Your task to perform on an android device: Turn on the flashlight Image 0: 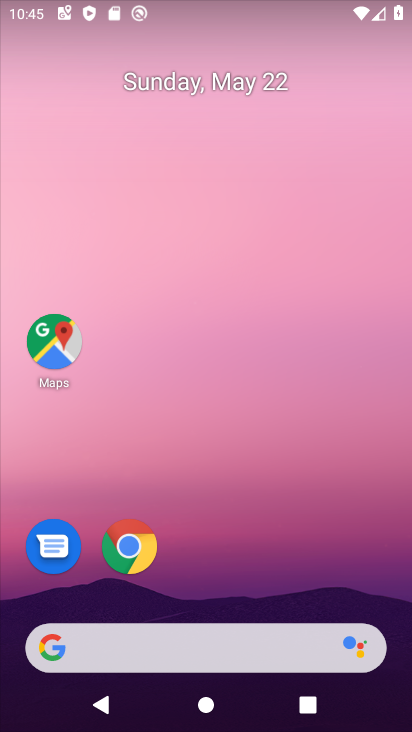
Step 0: drag from (256, 586) to (282, 0)
Your task to perform on an android device: Turn on the flashlight Image 1: 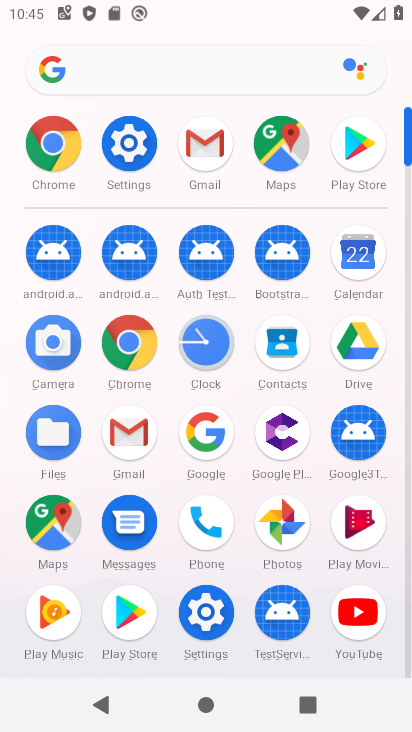
Step 1: click (200, 613)
Your task to perform on an android device: Turn on the flashlight Image 2: 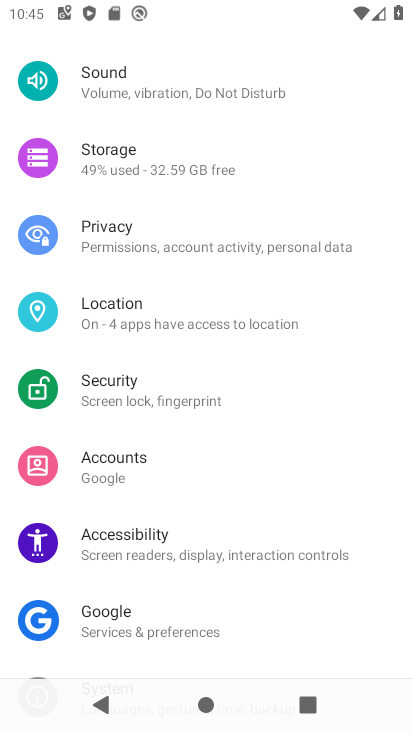
Step 2: drag from (241, 158) to (236, 643)
Your task to perform on an android device: Turn on the flashlight Image 3: 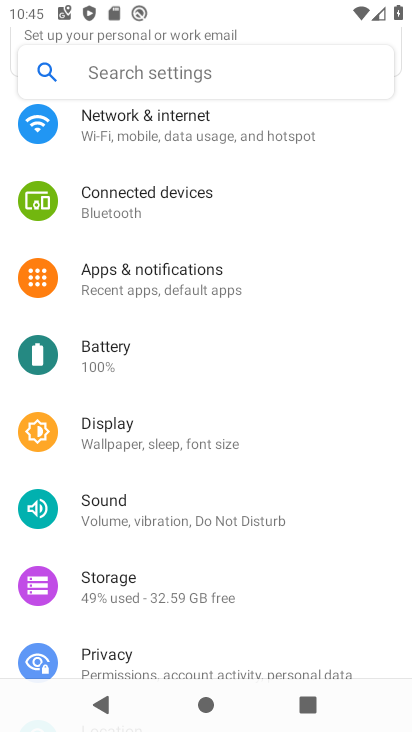
Step 3: click (201, 68)
Your task to perform on an android device: Turn on the flashlight Image 4: 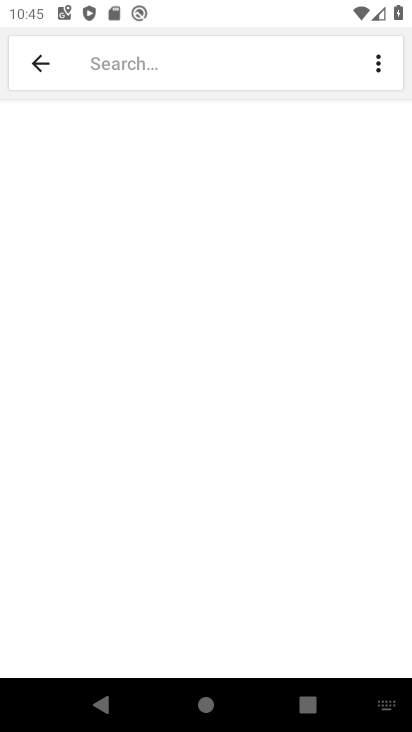
Step 4: type "flashlight"
Your task to perform on an android device: Turn on the flashlight Image 5: 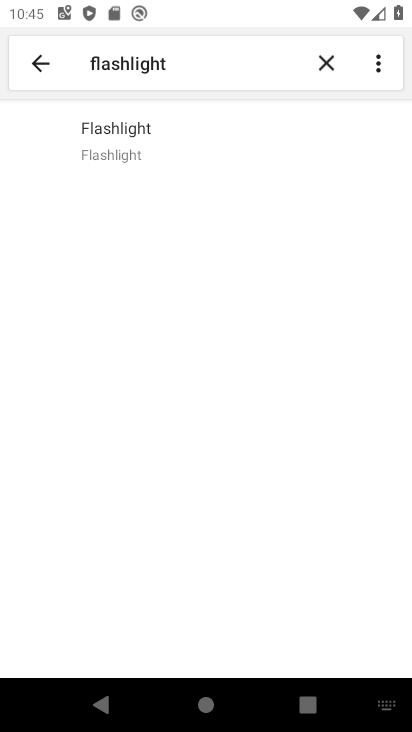
Step 5: click (130, 129)
Your task to perform on an android device: Turn on the flashlight Image 6: 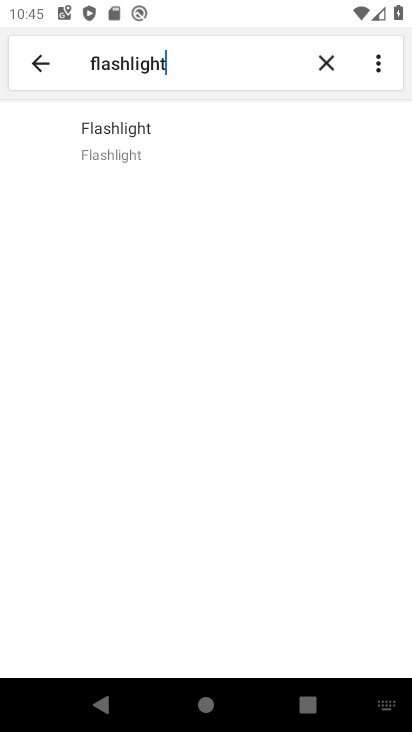
Step 6: click (131, 128)
Your task to perform on an android device: Turn on the flashlight Image 7: 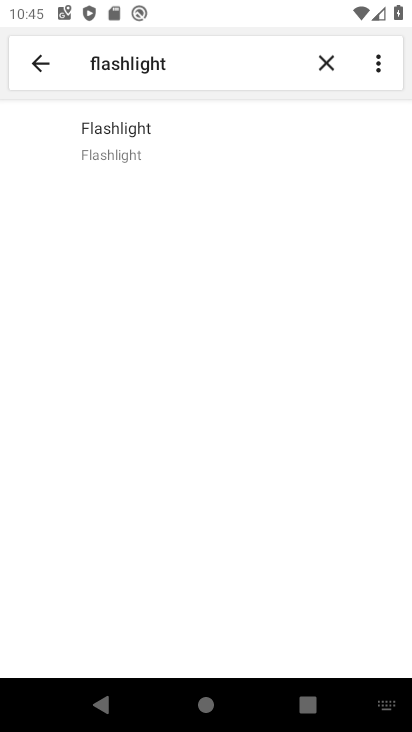
Step 7: task complete